Your task to perform on an android device: uninstall "eBay: The shopping marketplace" Image 0: 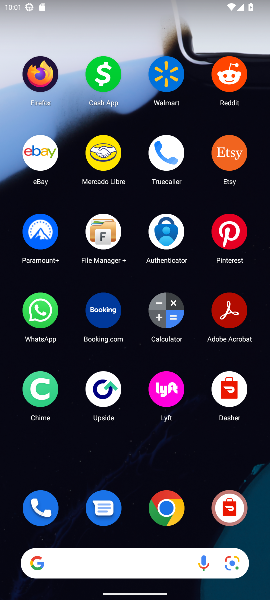
Step 0: drag from (97, 524) to (132, 3)
Your task to perform on an android device: uninstall "eBay: The shopping marketplace" Image 1: 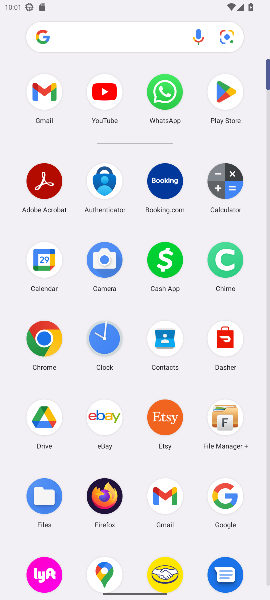
Step 1: click (226, 78)
Your task to perform on an android device: uninstall "eBay: The shopping marketplace" Image 2: 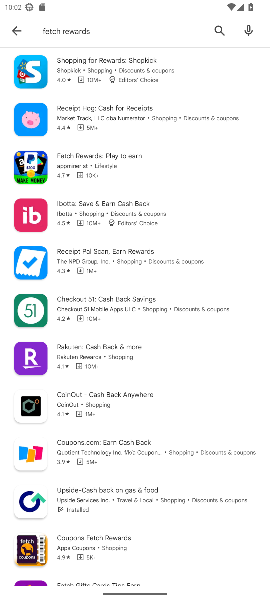
Step 2: click (218, 26)
Your task to perform on an android device: uninstall "eBay: The shopping marketplace" Image 3: 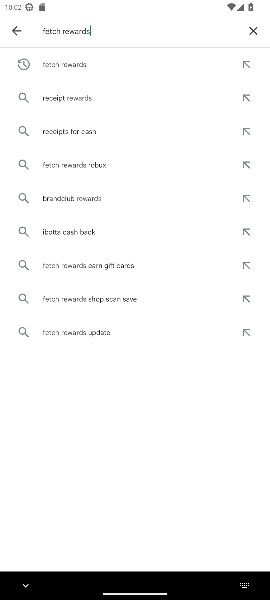
Step 3: click (253, 25)
Your task to perform on an android device: uninstall "eBay: The shopping marketplace" Image 4: 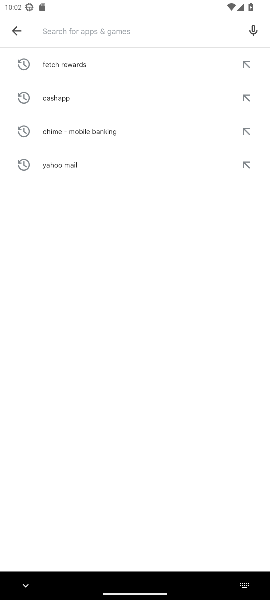
Step 4: type "ebay"
Your task to perform on an android device: uninstall "eBay: The shopping marketplace" Image 5: 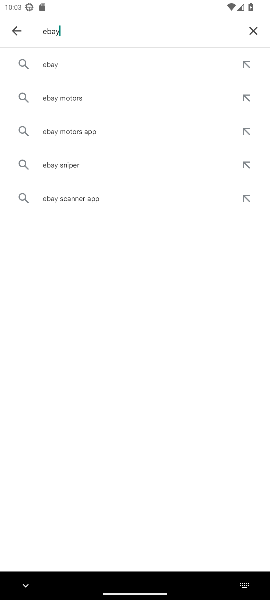
Step 5: click (253, 27)
Your task to perform on an android device: uninstall "eBay: The shopping marketplace" Image 6: 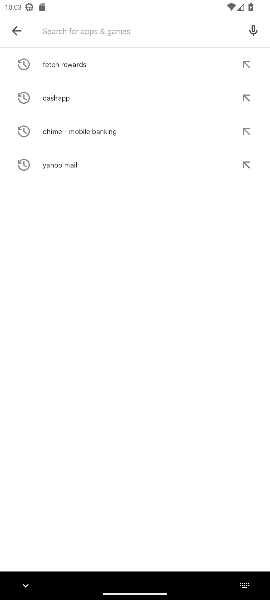
Step 6: type "ebay: the shopping marketplace"
Your task to perform on an android device: uninstall "eBay: The shopping marketplace" Image 7: 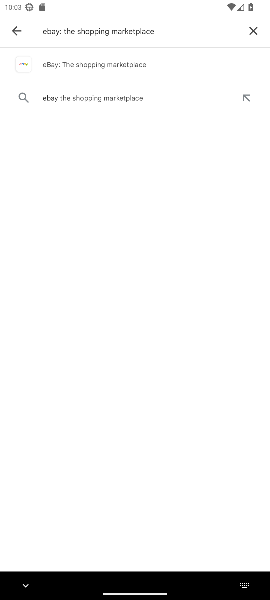
Step 7: click (113, 62)
Your task to perform on an android device: uninstall "eBay: The shopping marketplace" Image 8: 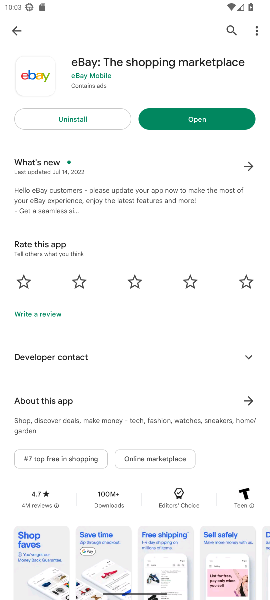
Step 8: click (68, 116)
Your task to perform on an android device: uninstall "eBay: The shopping marketplace" Image 9: 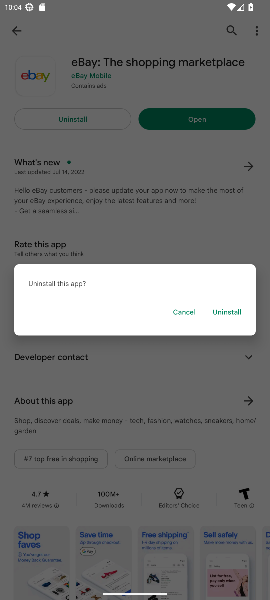
Step 9: click (226, 312)
Your task to perform on an android device: uninstall "eBay: The shopping marketplace" Image 10: 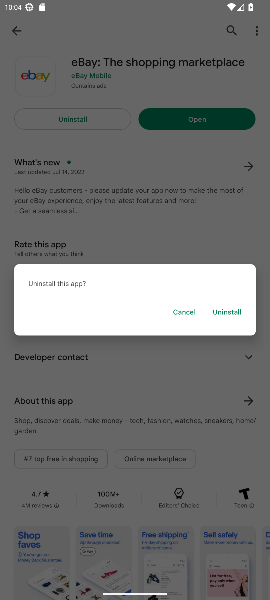
Step 10: click (226, 312)
Your task to perform on an android device: uninstall "eBay: The shopping marketplace" Image 11: 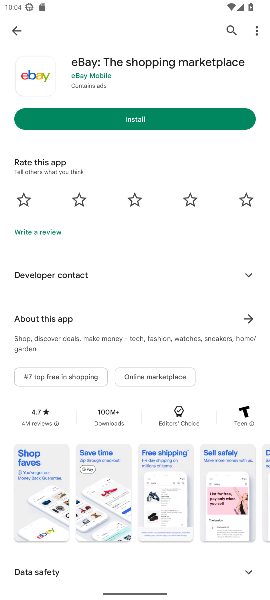
Step 11: task complete